Your task to perform on an android device: delete browsing data in the chrome app Image 0: 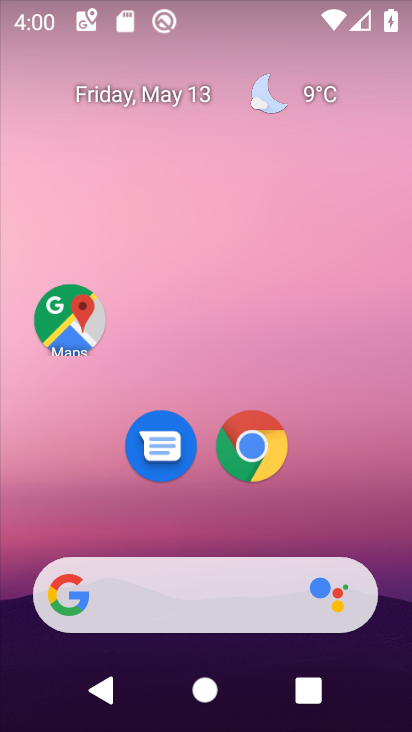
Step 0: click (252, 449)
Your task to perform on an android device: delete browsing data in the chrome app Image 1: 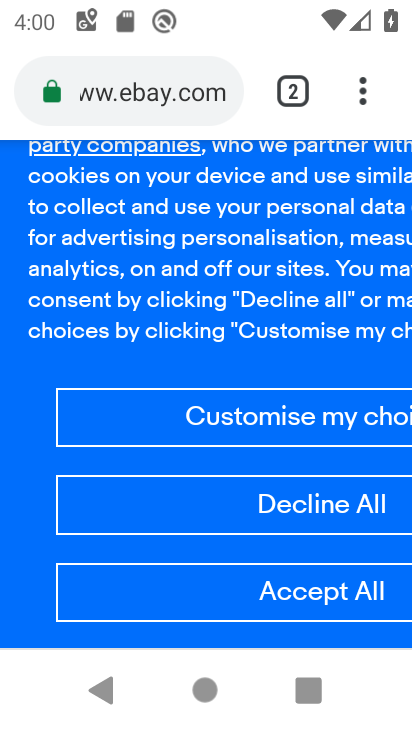
Step 1: click (359, 101)
Your task to perform on an android device: delete browsing data in the chrome app Image 2: 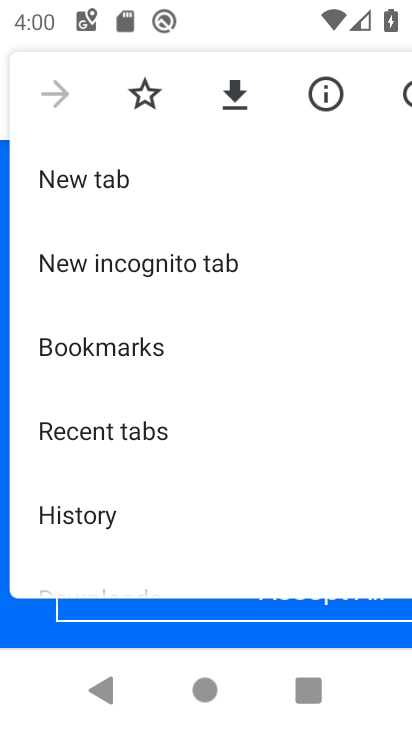
Step 2: drag from (150, 564) to (141, 342)
Your task to perform on an android device: delete browsing data in the chrome app Image 3: 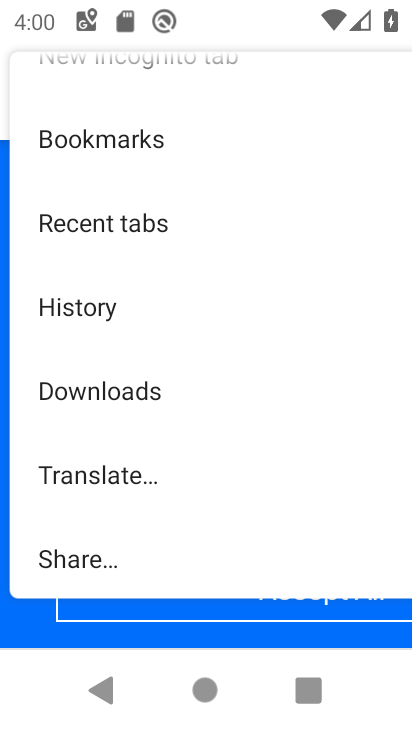
Step 3: click (125, 321)
Your task to perform on an android device: delete browsing data in the chrome app Image 4: 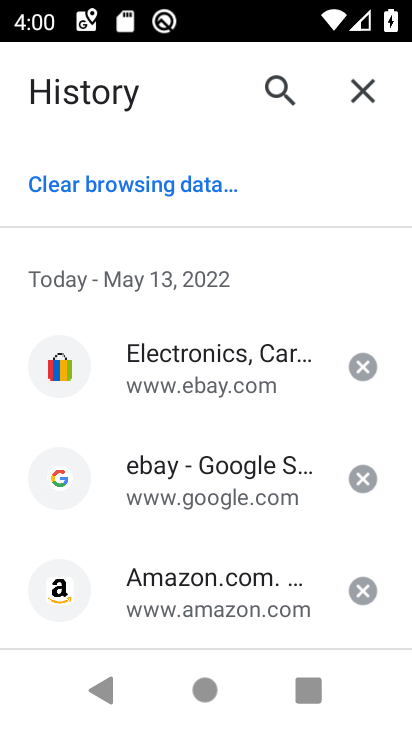
Step 4: click (87, 187)
Your task to perform on an android device: delete browsing data in the chrome app Image 5: 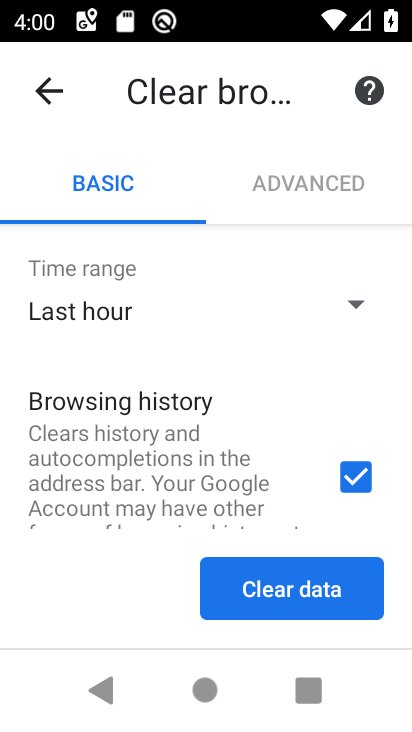
Step 5: click (295, 584)
Your task to perform on an android device: delete browsing data in the chrome app Image 6: 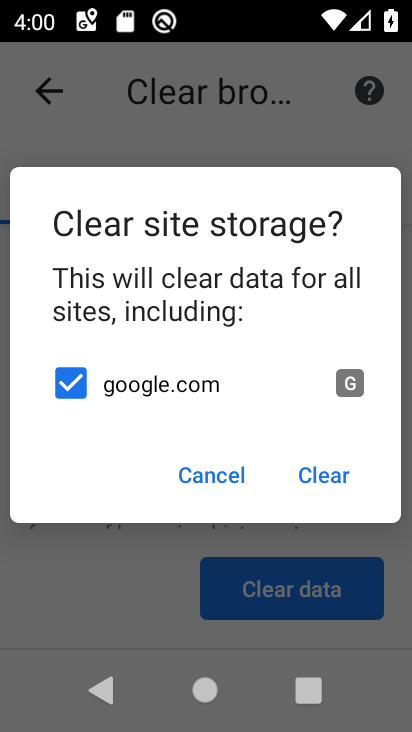
Step 6: click (331, 479)
Your task to perform on an android device: delete browsing data in the chrome app Image 7: 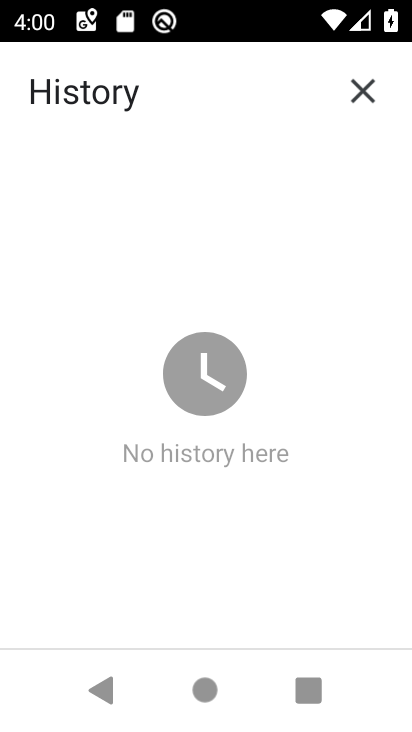
Step 7: task complete